Your task to perform on an android device: refresh tabs in the chrome app Image 0: 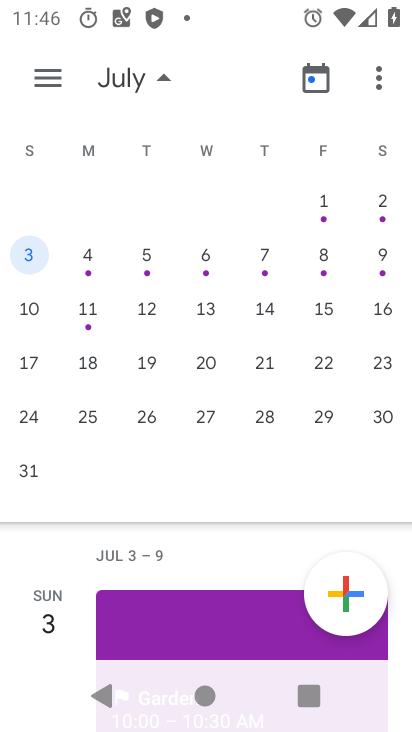
Step 0: press home button
Your task to perform on an android device: refresh tabs in the chrome app Image 1: 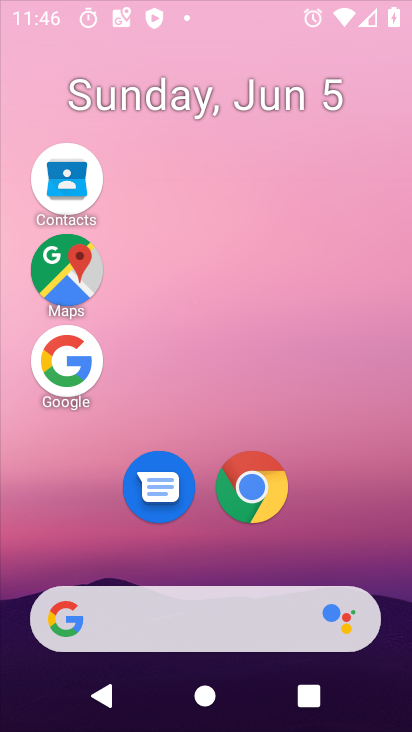
Step 1: drag from (274, 590) to (281, 75)
Your task to perform on an android device: refresh tabs in the chrome app Image 2: 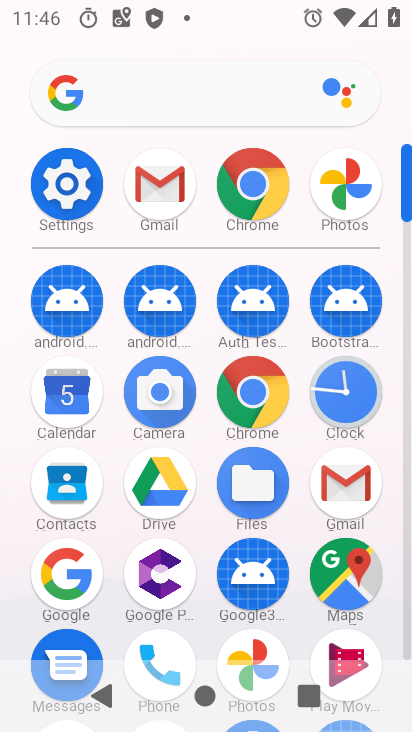
Step 2: click (242, 192)
Your task to perform on an android device: refresh tabs in the chrome app Image 3: 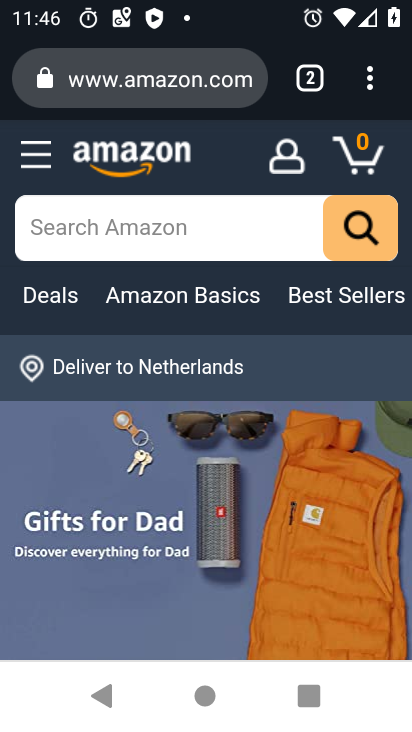
Step 3: click (379, 87)
Your task to perform on an android device: refresh tabs in the chrome app Image 4: 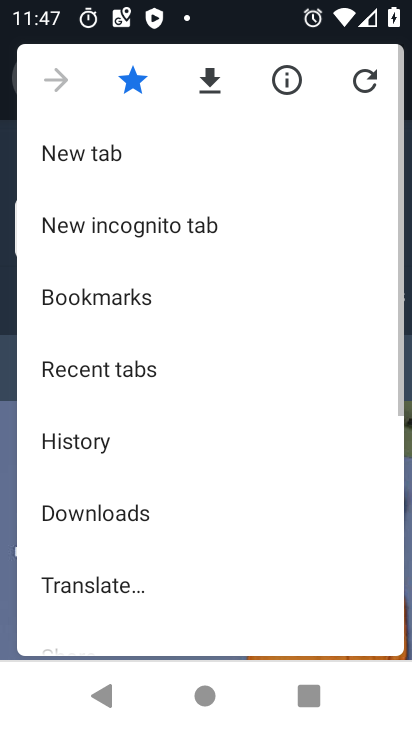
Step 4: click (383, 79)
Your task to perform on an android device: refresh tabs in the chrome app Image 5: 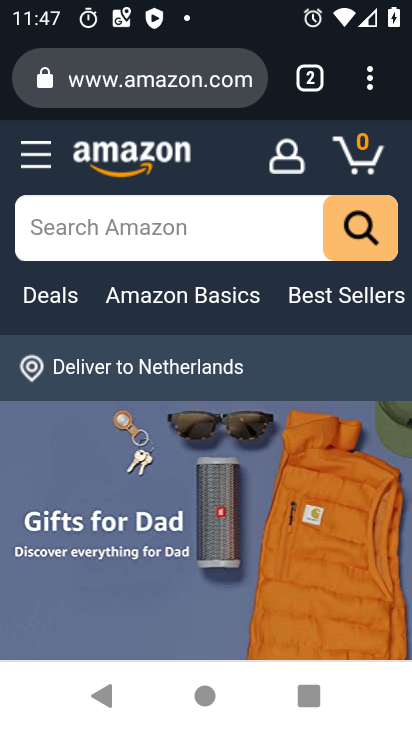
Step 5: task complete